Your task to perform on an android device: Go to calendar. Show me events next week Image 0: 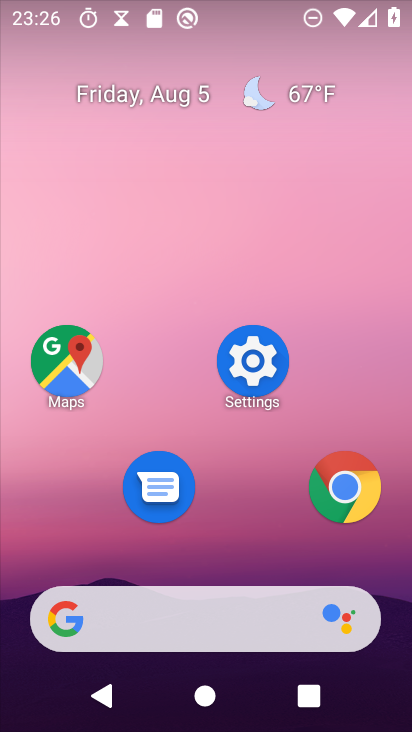
Step 0: drag from (229, 615) to (305, 0)
Your task to perform on an android device: Go to calendar. Show me events next week Image 1: 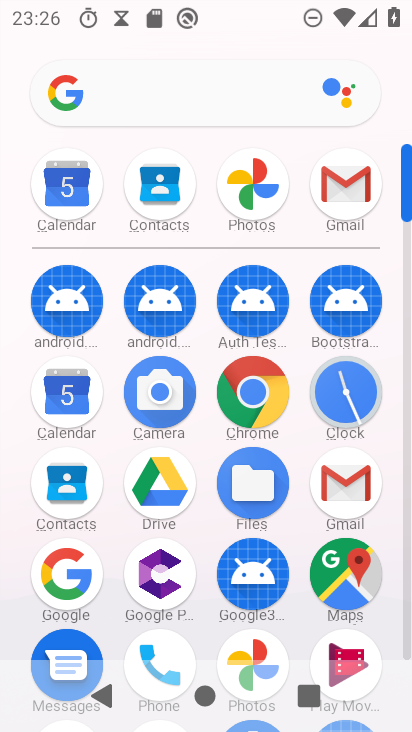
Step 1: click (77, 391)
Your task to perform on an android device: Go to calendar. Show me events next week Image 2: 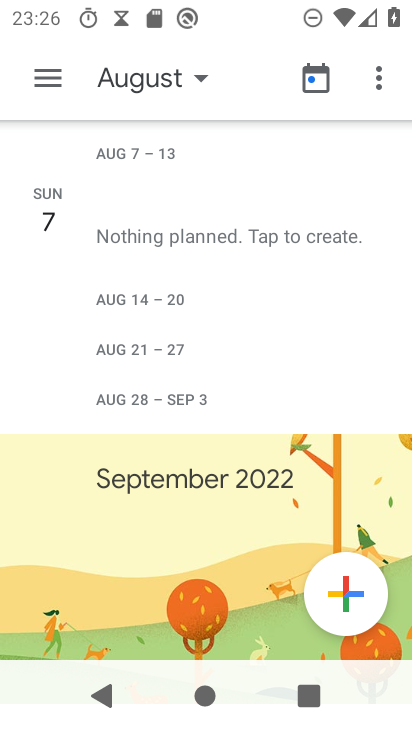
Step 2: task complete